Your task to perform on an android device: Open Google Chrome and open the bookmarks view Image 0: 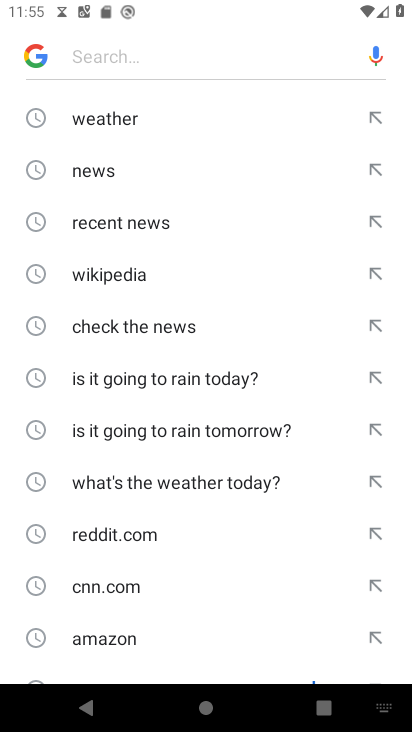
Step 0: press home button
Your task to perform on an android device: Open Google Chrome and open the bookmarks view Image 1: 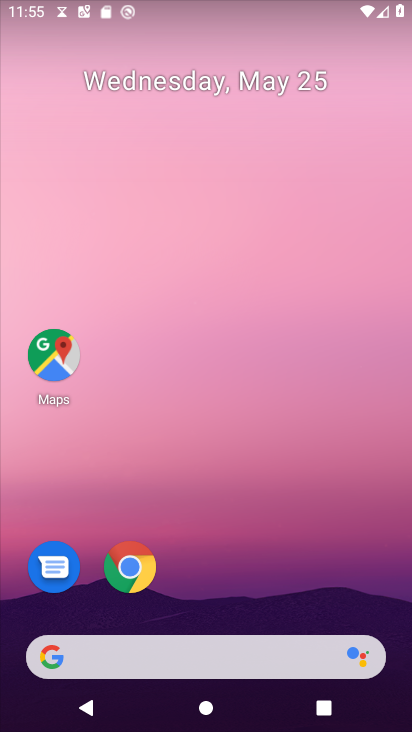
Step 1: click (121, 568)
Your task to perform on an android device: Open Google Chrome and open the bookmarks view Image 2: 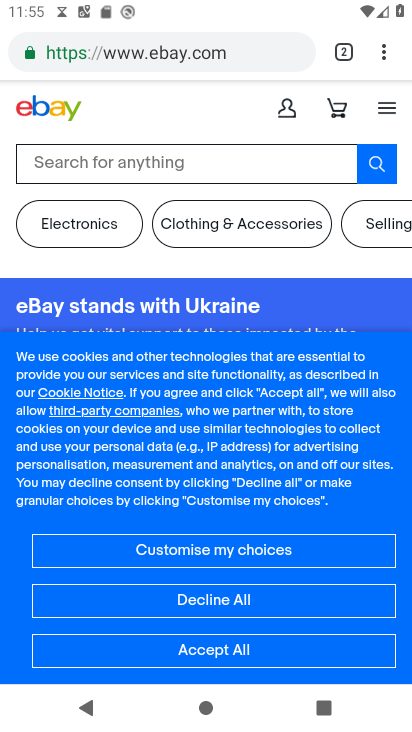
Step 2: click (369, 50)
Your task to perform on an android device: Open Google Chrome and open the bookmarks view Image 3: 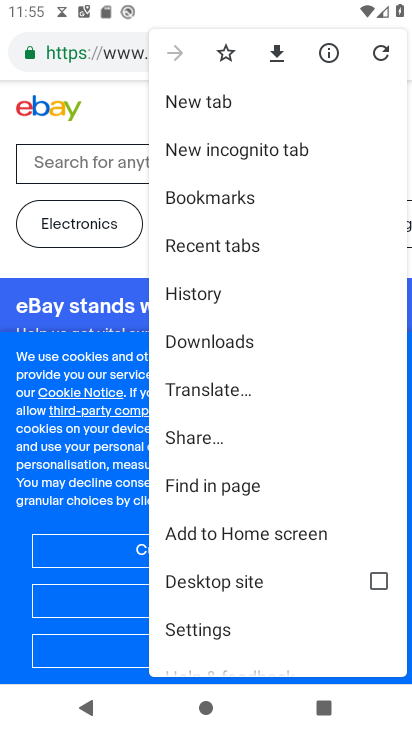
Step 3: click (215, 204)
Your task to perform on an android device: Open Google Chrome and open the bookmarks view Image 4: 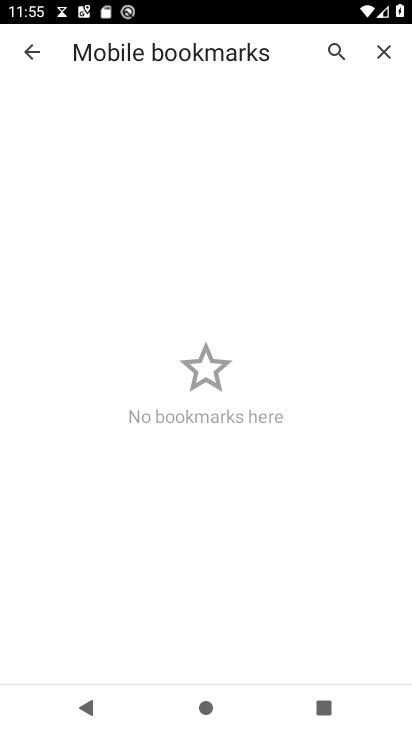
Step 4: task complete